Your task to perform on an android device: open wifi settings Image 0: 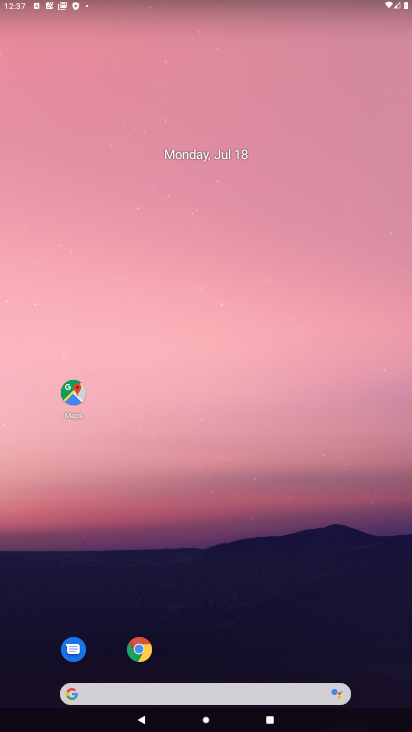
Step 0: drag from (373, 660) to (332, 217)
Your task to perform on an android device: open wifi settings Image 1: 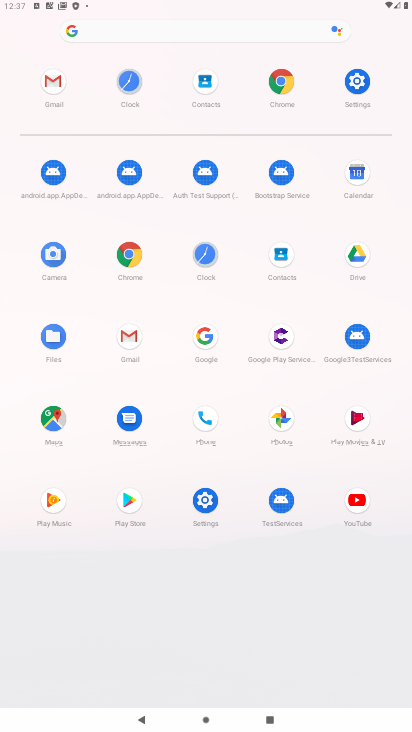
Step 1: click (206, 499)
Your task to perform on an android device: open wifi settings Image 2: 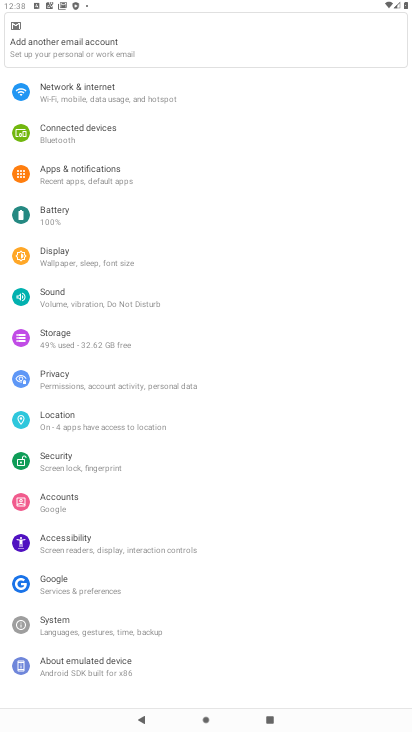
Step 2: click (61, 84)
Your task to perform on an android device: open wifi settings Image 3: 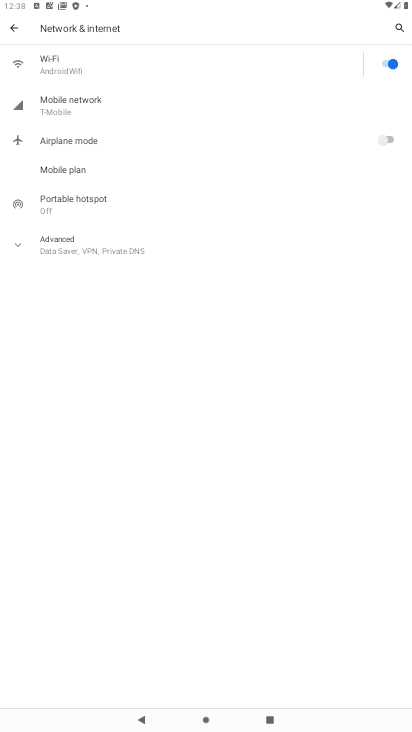
Step 3: click (51, 58)
Your task to perform on an android device: open wifi settings Image 4: 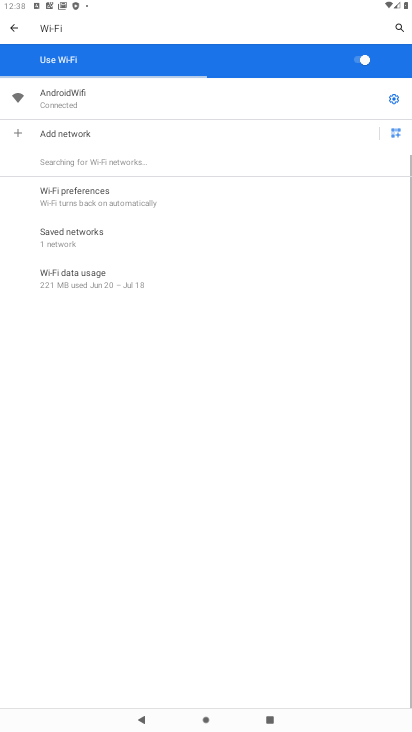
Step 4: click (393, 97)
Your task to perform on an android device: open wifi settings Image 5: 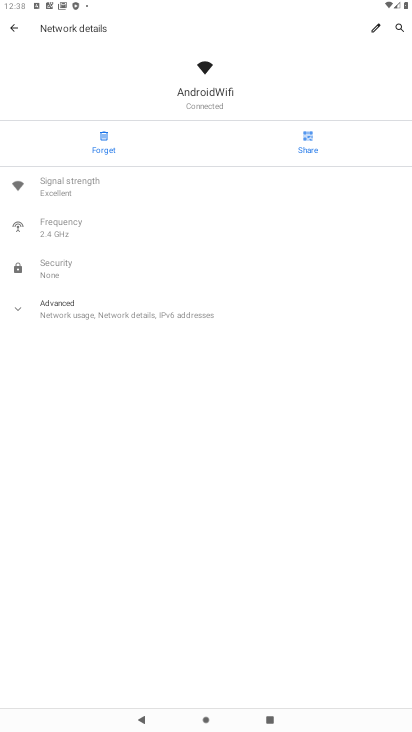
Step 5: task complete